Your task to perform on an android device: Open Android settings Image 0: 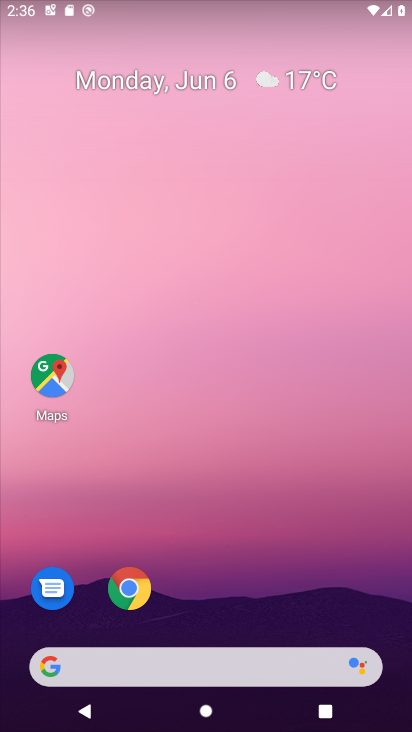
Step 0: drag from (274, 608) to (289, 149)
Your task to perform on an android device: Open Android settings Image 1: 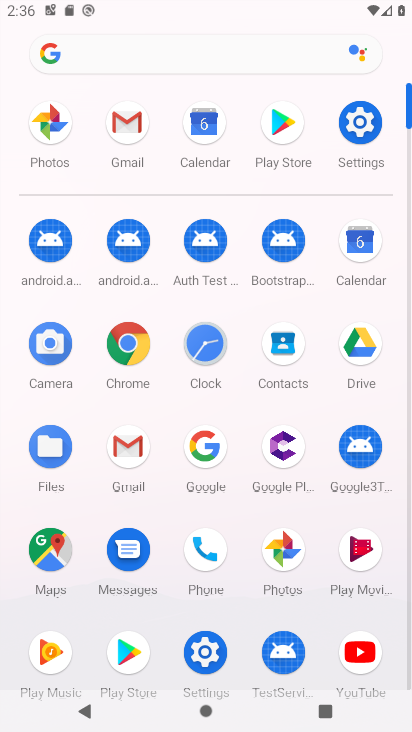
Step 1: click (365, 137)
Your task to perform on an android device: Open Android settings Image 2: 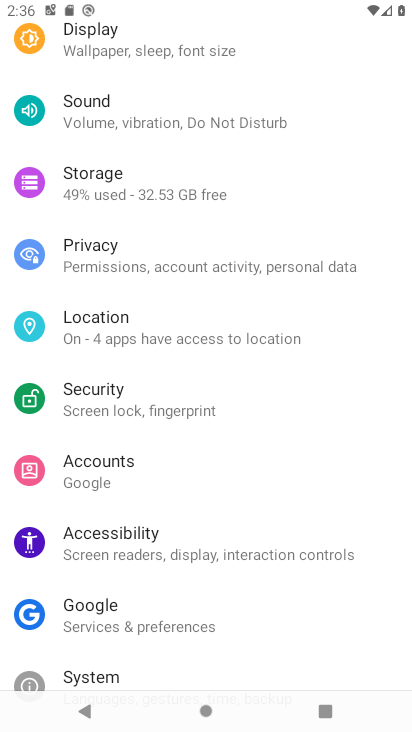
Step 2: drag from (189, 570) to (357, 174)
Your task to perform on an android device: Open Android settings Image 3: 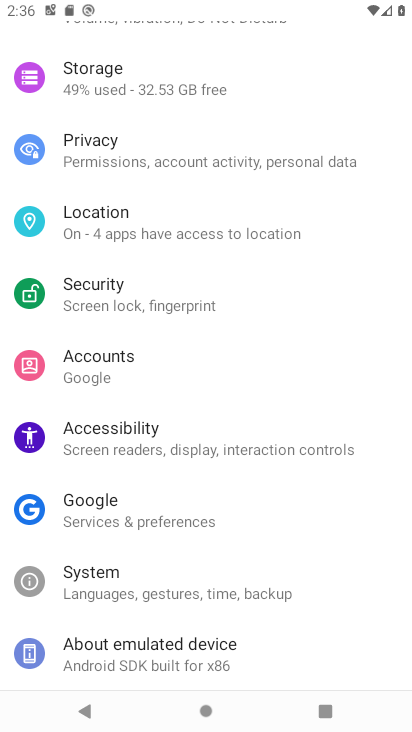
Step 3: drag from (280, 615) to (314, 111)
Your task to perform on an android device: Open Android settings Image 4: 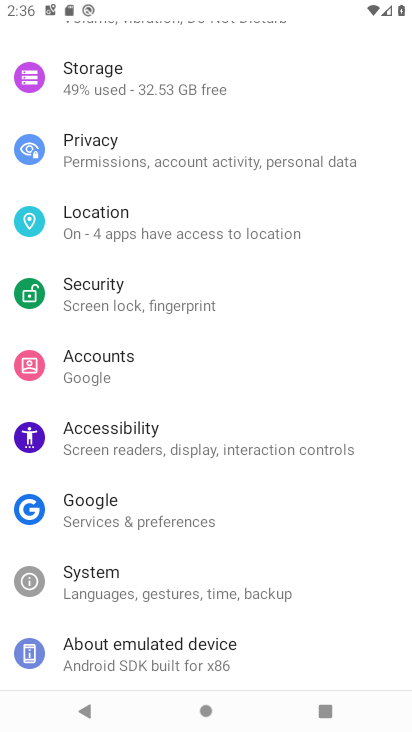
Step 4: drag from (295, 133) to (197, 655)
Your task to perform on an android device: Open Android settings Image 5: 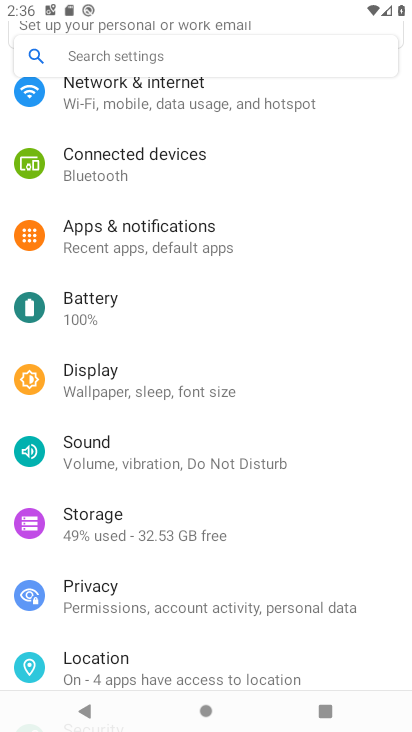
Step 5: drag from (274, 315) to (314, 99)
Your task to perform on an android device: Open Android settings Image 6: 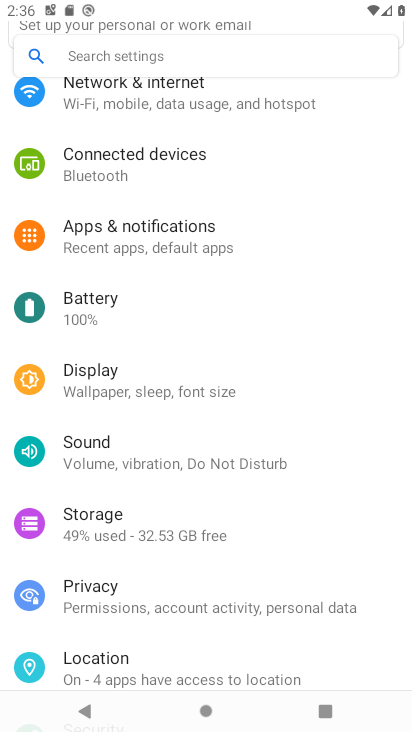
Step 6: drag from (241, 620) to (279, 230)
Your task to perform on an android device: Open Android settings Image 7: 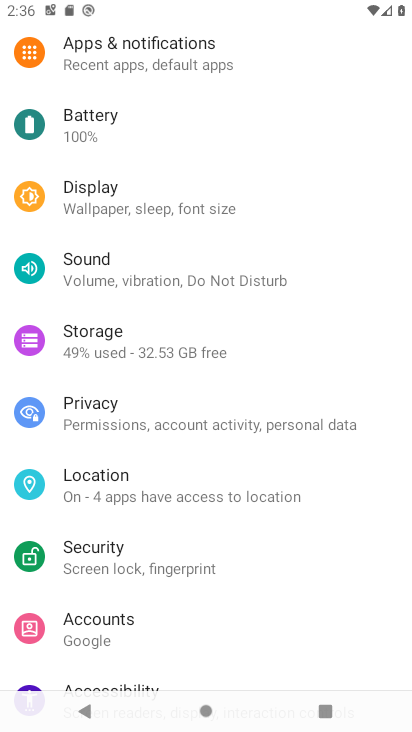
Step 7: drag from (266, 628) to (337, 179)
Your task to perform on an android device: Open Android settings Image 8: 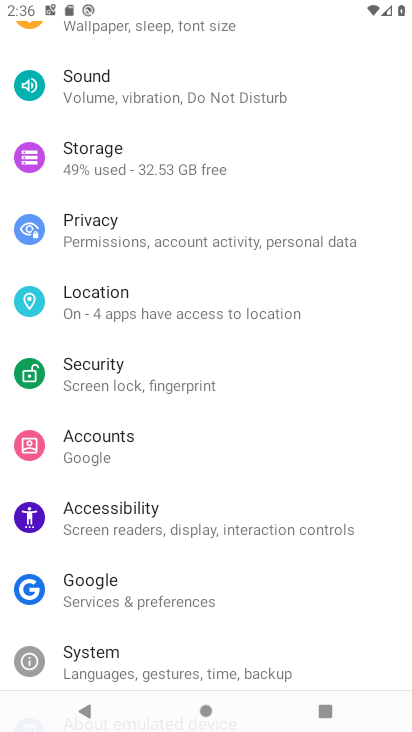
Step 8: drag from (278, 653) to (317, 394)
Your task to perform on an android device: Open Android settings Image 9: 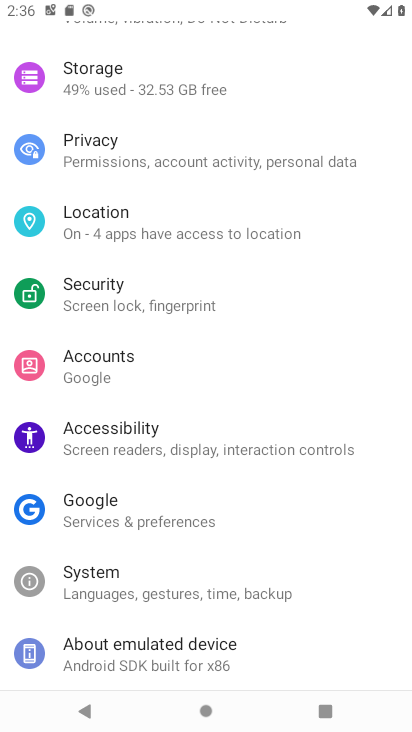
Step 9: click (152, 656)
Your task to perform on an android device: Open Android settings Image 10: 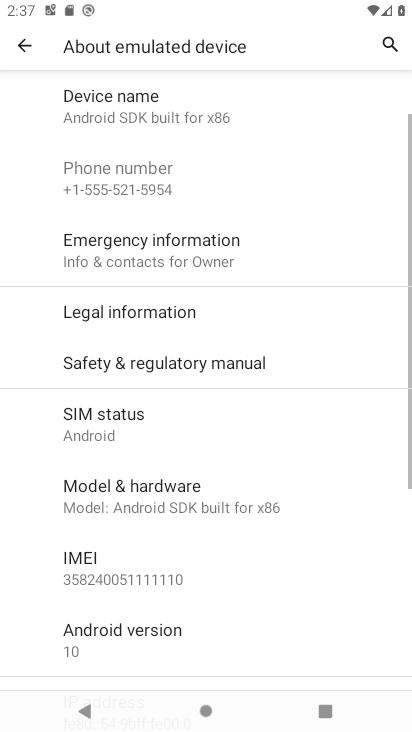
Step 10: task complete